Your task to perform on an android device: Go to Wikipedia Image 0: 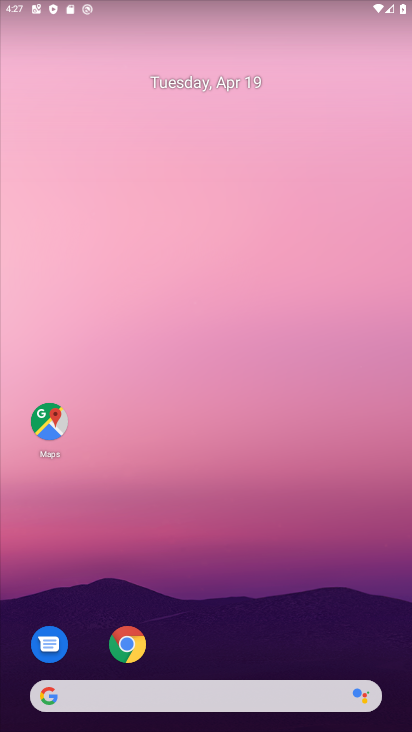
Step 0: drag from (198, 609) to (222, 179)
Your task to perform on an android device: Go to Wikipedia Image 1: 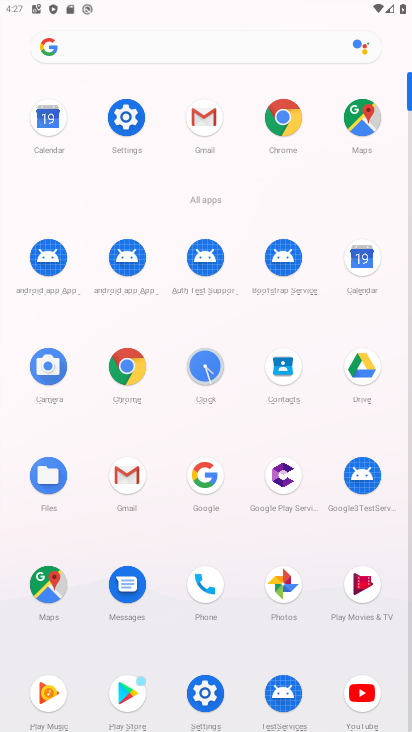
Step 1: click (120, 372)
Your task to perform on an android device: Go to Wikipedia Image 2: 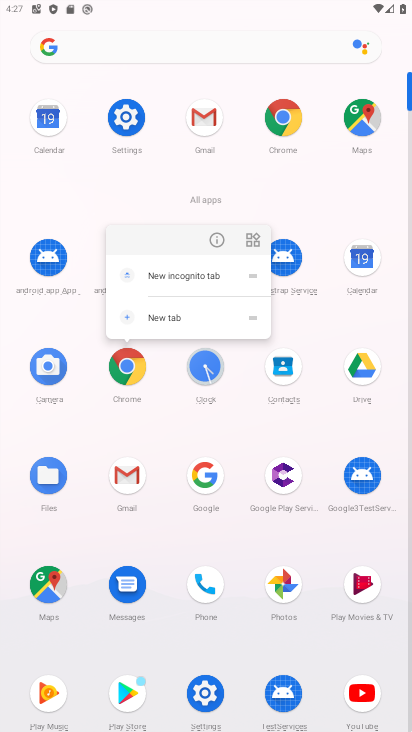
Step 2: click (123, 383)
Your task to perform on an android device: Go to Wikipedia Image 3: 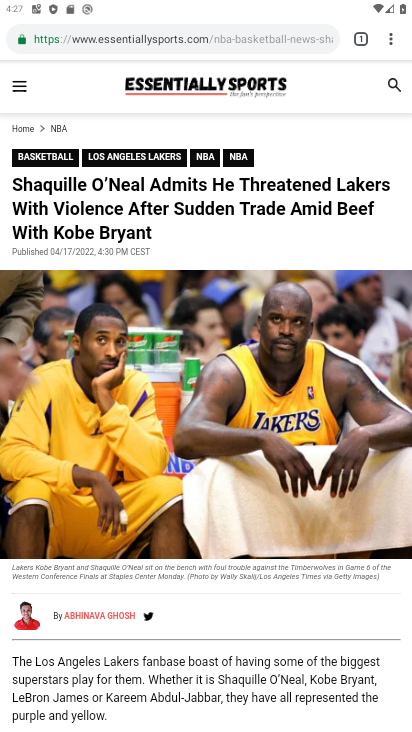
Step 3: click (205, 43)
Your task to perform on an android device: Go to Wikipedia Image 4: 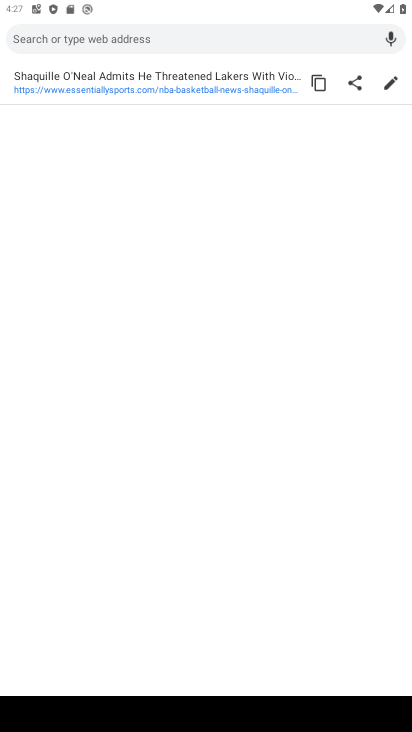
Step 4: type "wikipedia"
Your task to perform on an android device: Go to Wikipedia Image 5: 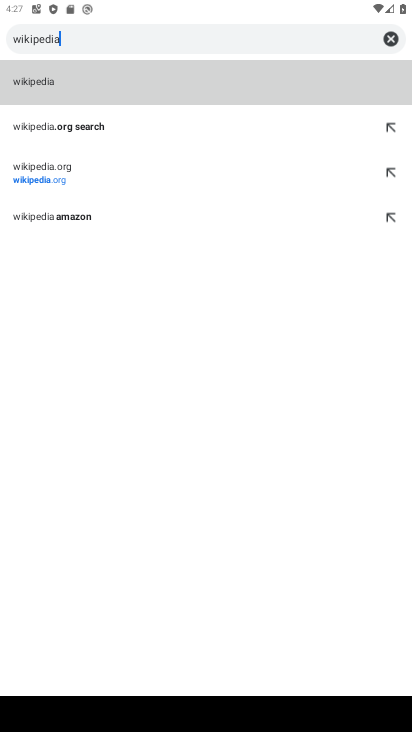
Step 5: click (58, 81)
Your task to perform on an android device: Go to Wikipedia Image 6: 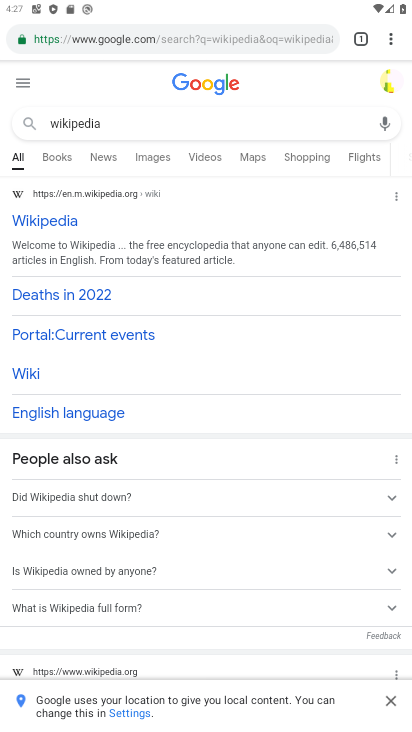
Step 6: click (33, 229)
Your task to perform on an android device: Go to Wikipedia Image 7: 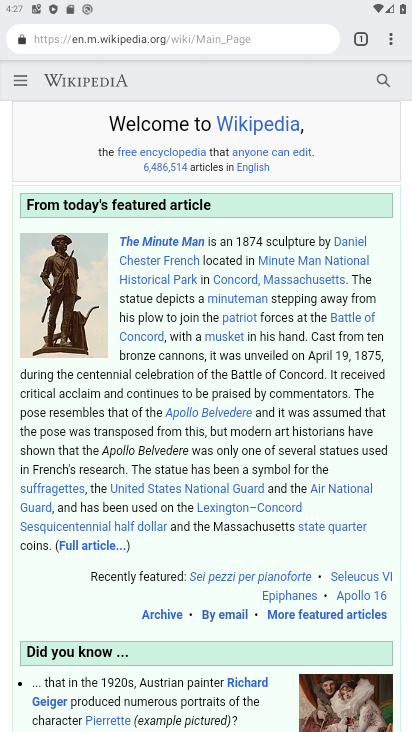
Step 7: task complete